Your task to perform on an android device: change the clock display to analog Image 0: 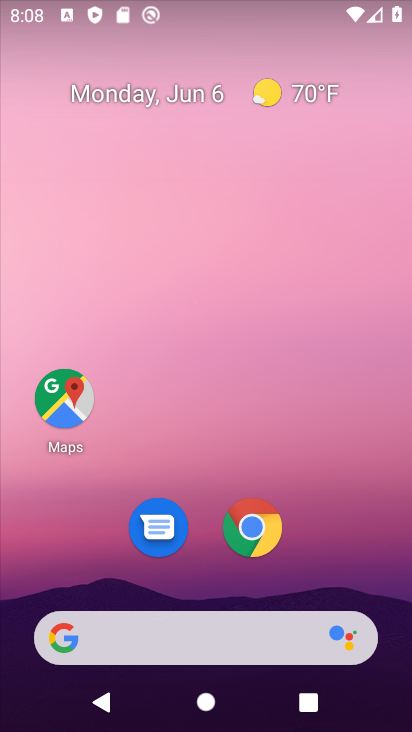
Step 0: drag from (187, 535) to (192, 197)
Your task to perform on an android device: change the clock display to analog Image 1: 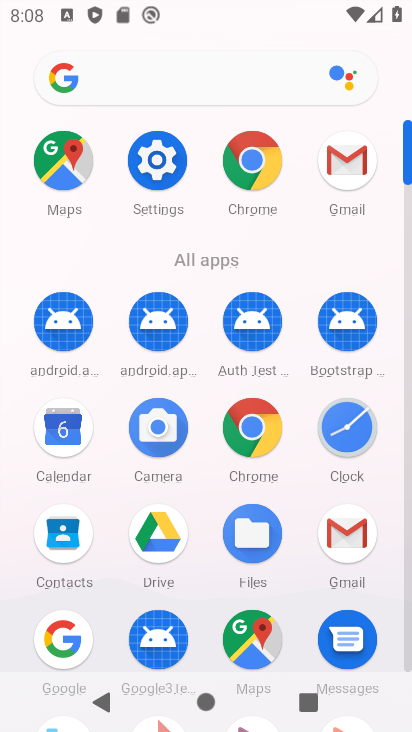
Step 1: click (355, 432)
Your task to perform on an android device: change the clock display to analog Image 2: 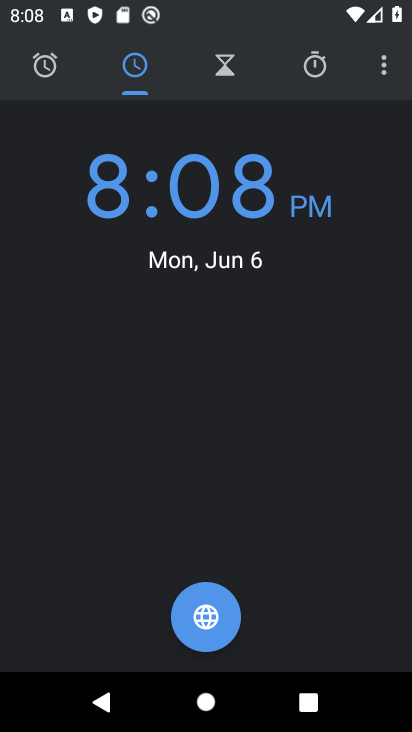
Step 2: click (391, 81)
Your task to perform on an android device: change the clock display to analog Image 3: 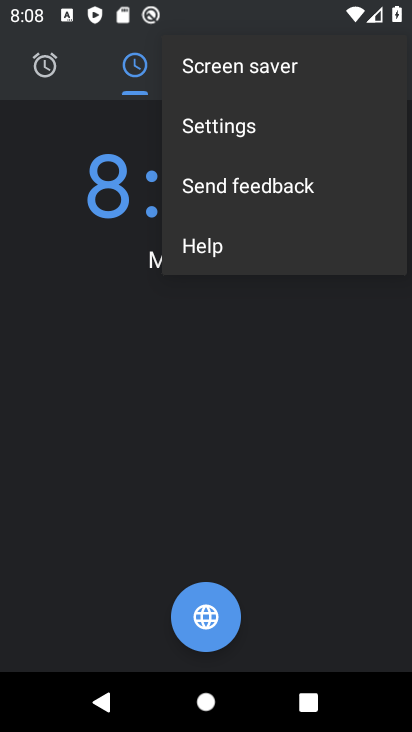
Step 3: click (221, 130)
Your task to perform on an android device: change the clock display to analog Image 4: 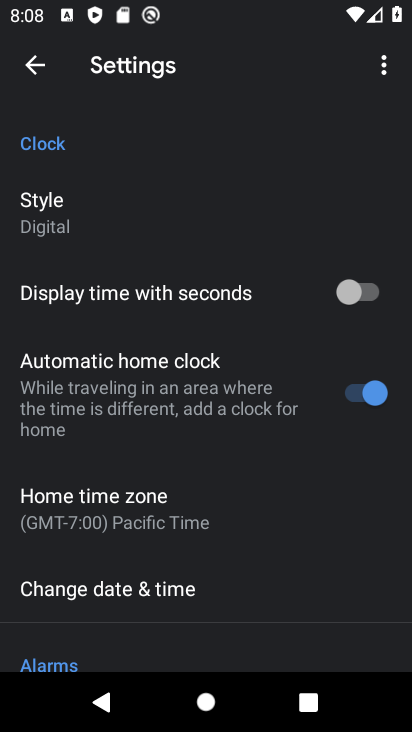
Step 4: click (93, 223)
Your task to perform on an android device: change the clock display to analog Image 5: 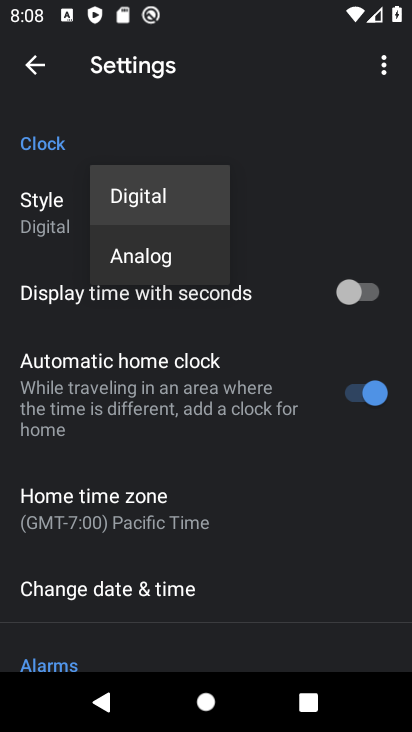
Step 5: click (160, 267)
Your task to perform on an android device: change the clock display to analog Image 6: 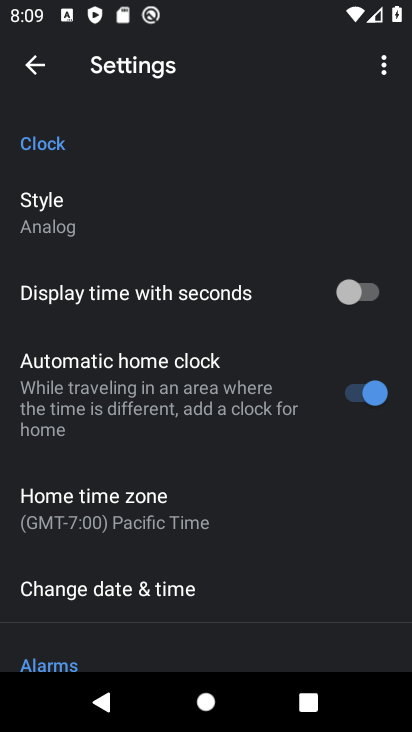
Step 6: task complete